Your task to perform on an android device: Set an alarm for 6am Image 0: 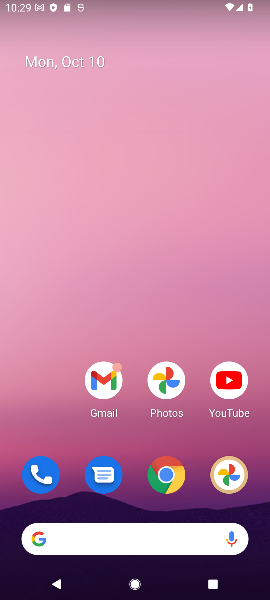
Step 0: drag from (148, 535) to (152, 76)
Your task to perform on an android device: Set an alarm for 6am Image 1: 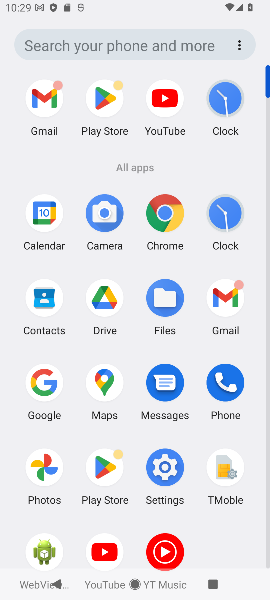
Step 1: click (215, 217)
Your task to perform on an android device: Set an alarm for 6am Image 2: 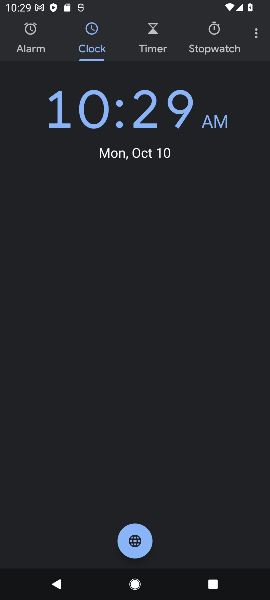
Step 2: click (40, 45)
Your task to perform on an android device: Set an alarm for 6am Image 3: 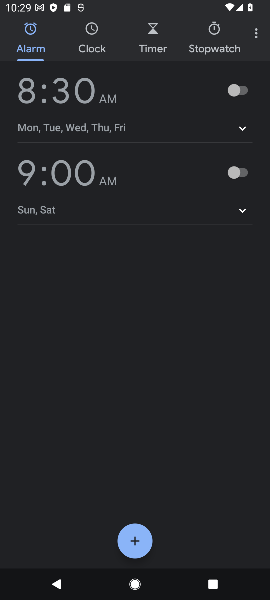
Step 3: click (143, 549)
Your task to perform on an android device: Set an alarm for 6am Image 4: 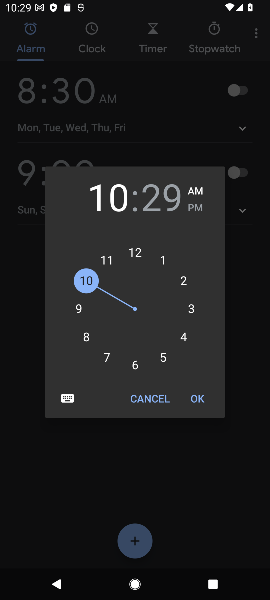
Step 4: click (135, 369)
Your task to perform on an android device: Set an alarm for 6am Image 5: 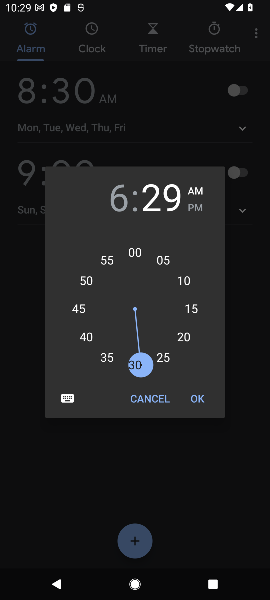
Step 5: click (134, 253)
Your task to perform on an android device: Set an alarm for 6am Image 6: 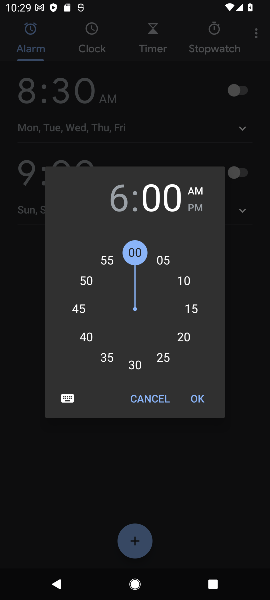
Step 6: click (192, 406)
Your task to perform on an android device: Set an alarm for 6am Image 7: 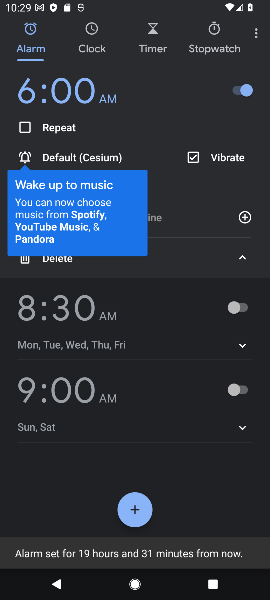
Step 7: task complete